Your task to perform on an android device: make emails show in primary in the gmail app Image 0: 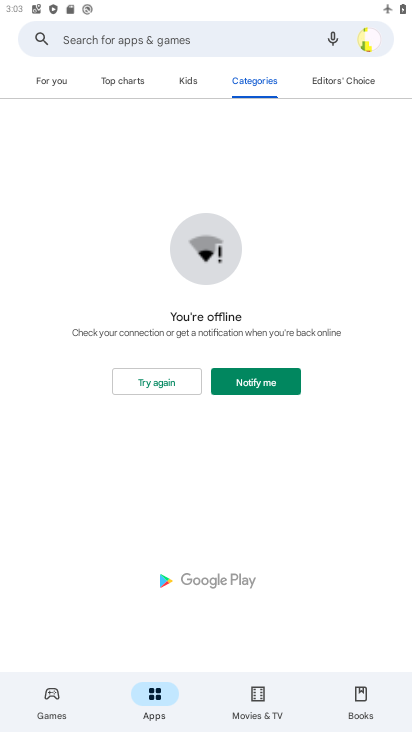
Step 0: press home button
Your task to perform on an android device: make emails show in primary in the gmail app Image 1: 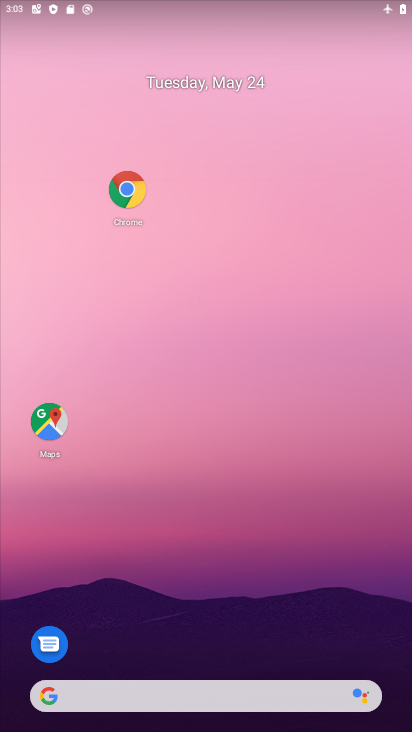
Step 1: drag from (242, 589) to (251, 81)
Your task to perform on an android device: make emails show in primary in the gmail app Image 2: 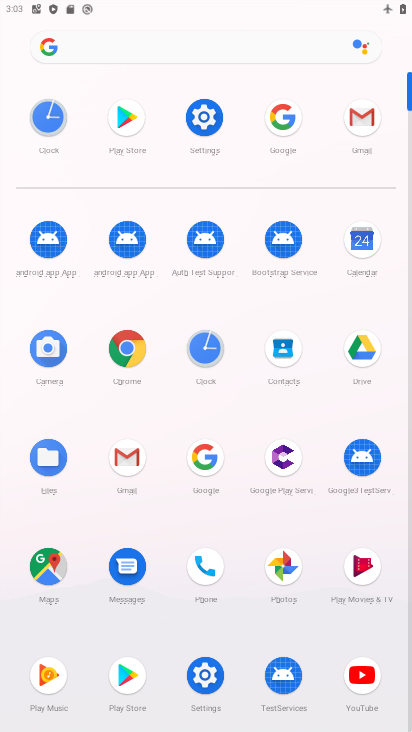
Step 2: click (135, 452)
Your task to perform on an android device: make emails show in primary in the gmail app Image 3: 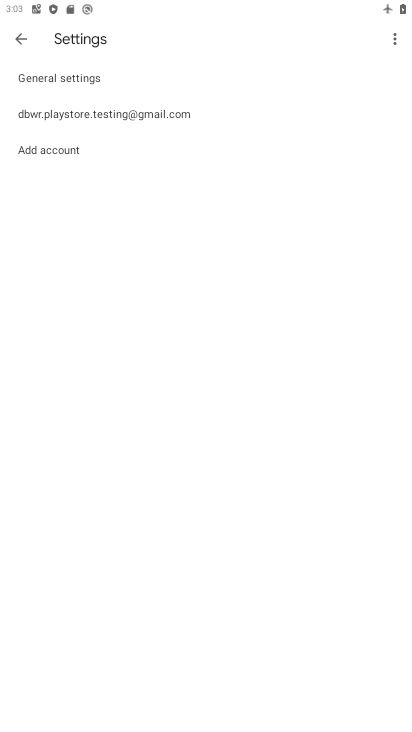
Step 3: click (96, 116)
Your task to perform on an android device: make emails show in primary in the gmail app Image 4: 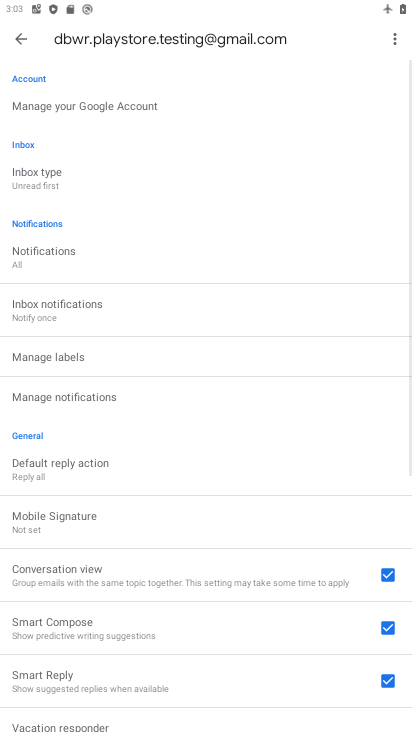
Step 4: click (259, 594)
Your task to perform on an android device: make emails show in primary in the gmail app Image 5: 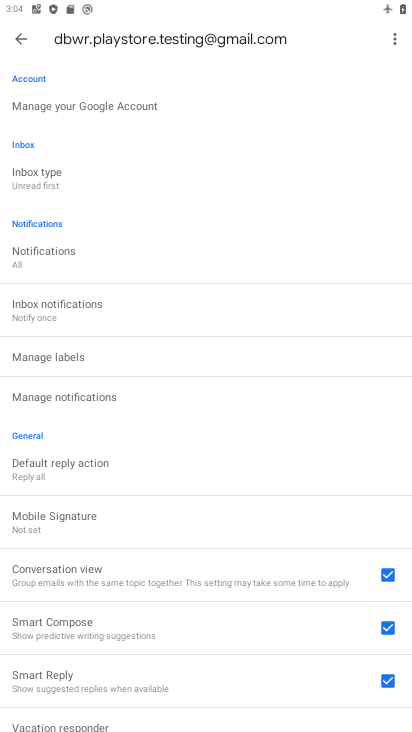
Step 5: click (78, 186)
Your task to perform on an android device: make emails show in primary in the gmail app Image 6: 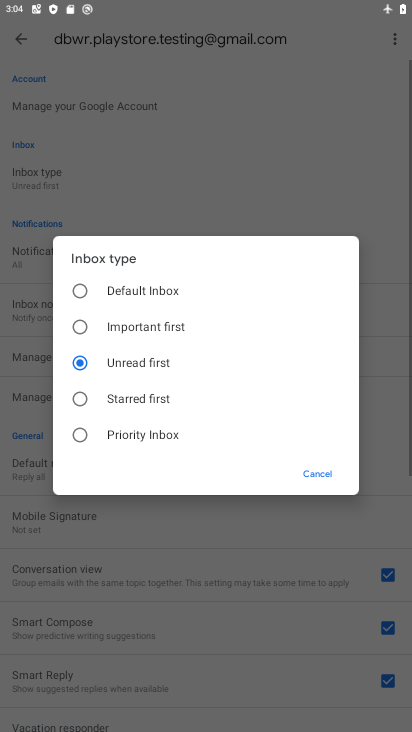
Step 6: click (94, 292)
Your task to perform on an android device: make emails show in primary in the gmail app Image 7: 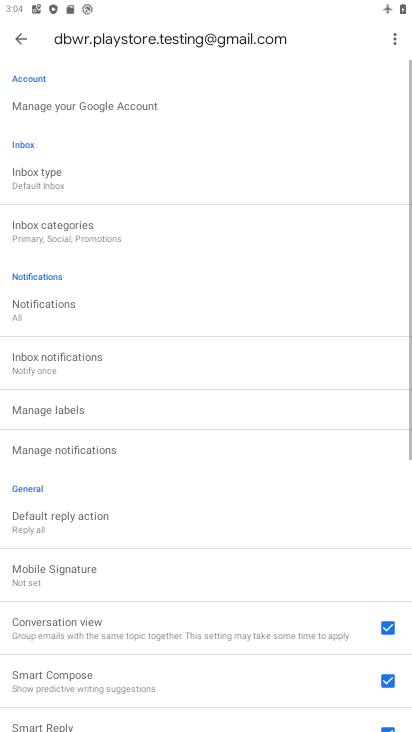
Step 7: click (55, 323)
Your task to perform on an android device: make emails show in primary in the gmail app Image 8: 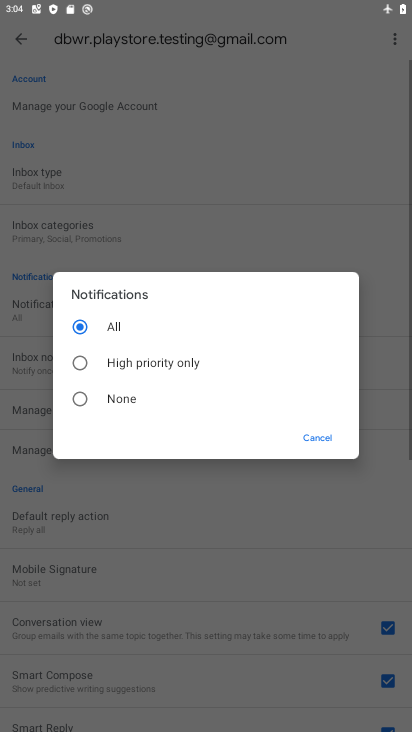
Step 8: click (223, 239)
Your task to perform on an android device: make emails show in primary in the gmail app Image 9: 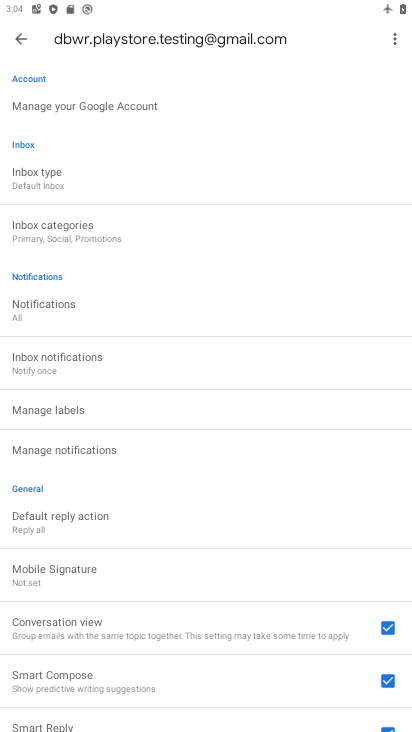
Step 9: click (116, 232)
Your task to perform on an android device: make emails show in primary in the gmail app Image 10: 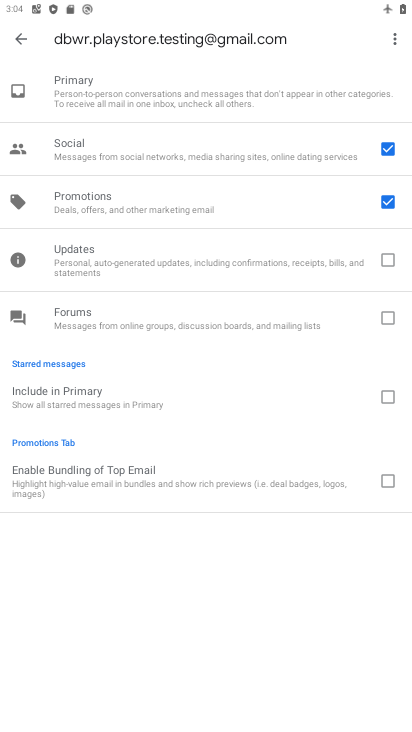
Step 10: click (388, 206)
Your task to perform on an android device: make emails show in primary in the gmail app Image 11: 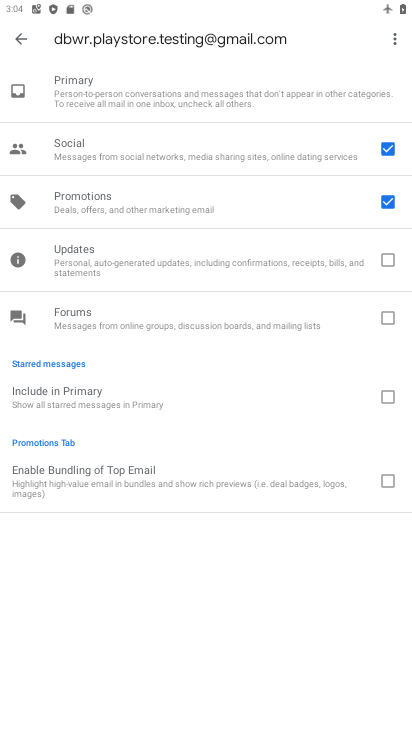
Step 11: click (383, 157)
Your task to perform on an android device: make emails show in primary in the gmail app Image 12: 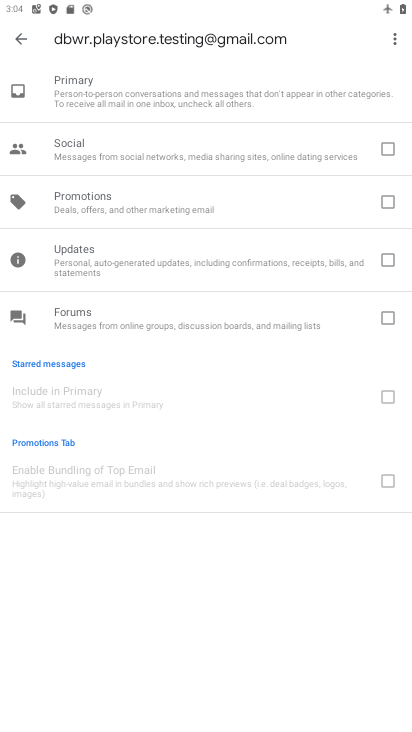
Step 12: task complete